Your task to perform on an android device: Open CNN.com Image 0: 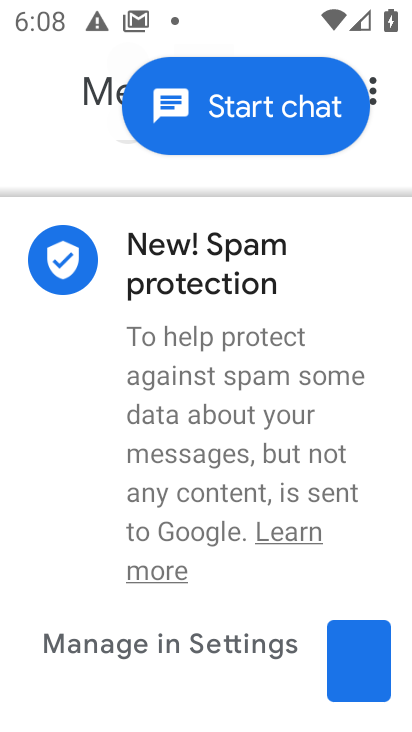
Step 0: press home button
Your task to perform on an android device: Open CNN.com Image 1: 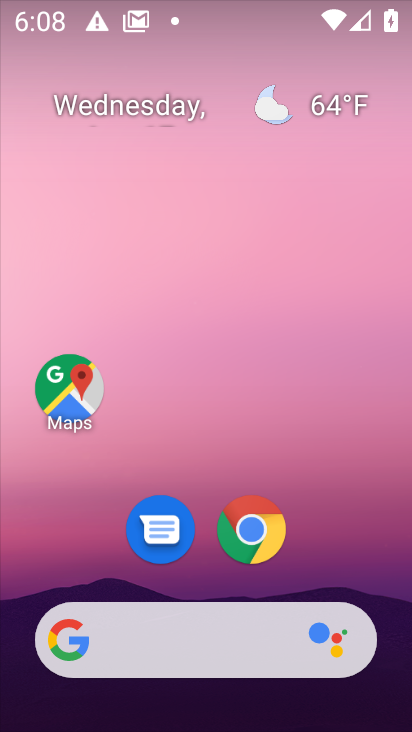
Step 1: click (257, 524)
Your task to perform on an android device: Open CNN.com Image 2: 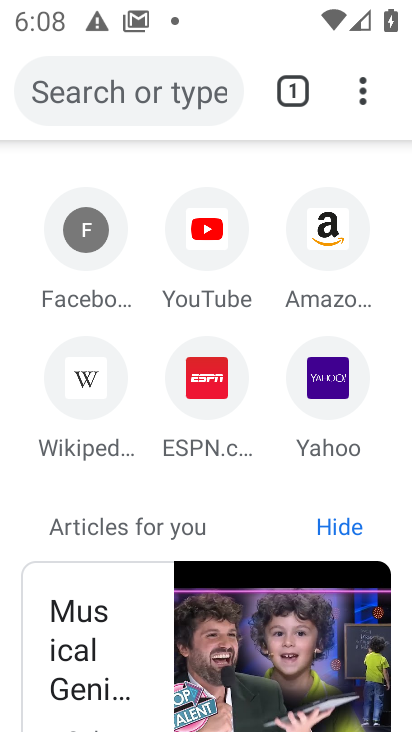
Step 2: click (163, 84)
Your task to perform on an android device: Open CNN.com Image 3: 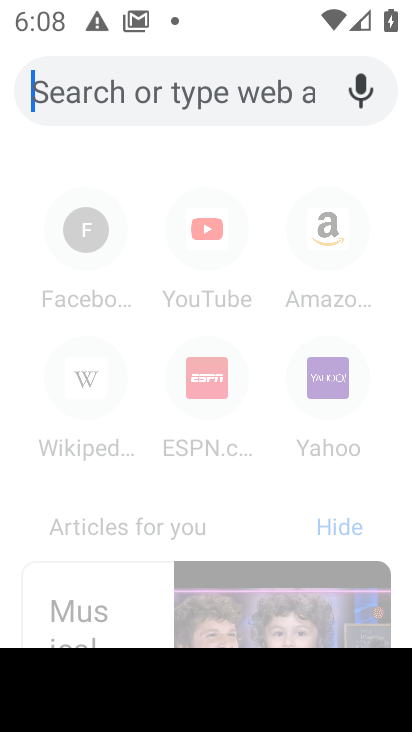
Step 3: type "www.cnn.com"
Your task to perform on an android device: Open CNN.com Image 4: 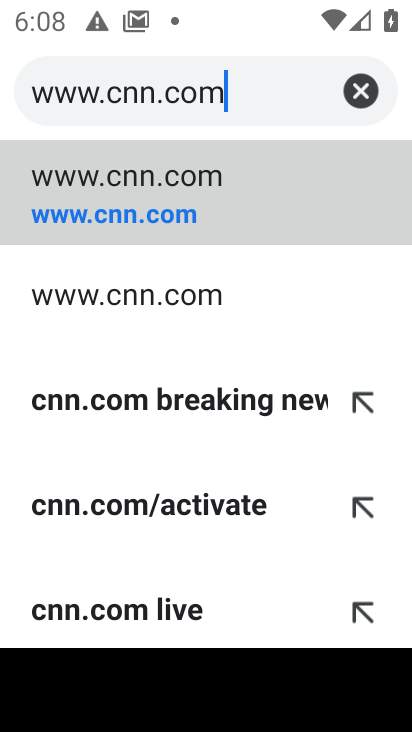
Step 4: click (170, 211)
Your task to perform on an android device: Open CNN.com Image 5: 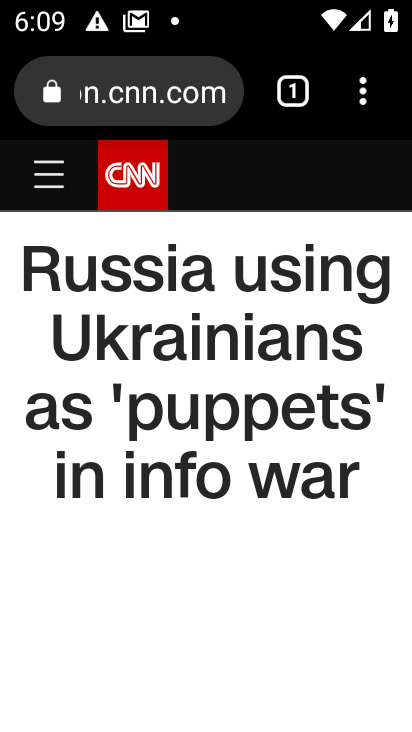
Step 5: task complete